Your task to perform on an android device: add a label to a message in the gmail app Image 0: 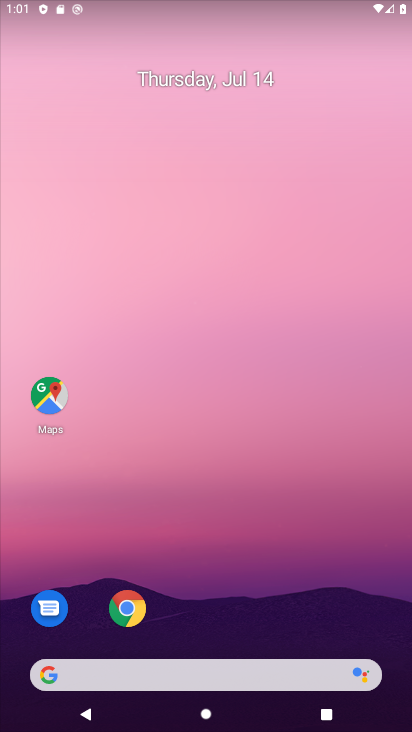
Step 0: drag from (176, 613) to (171, 231)
Your task to perform on an android device: add a label to a message in the gmail app Image 1: 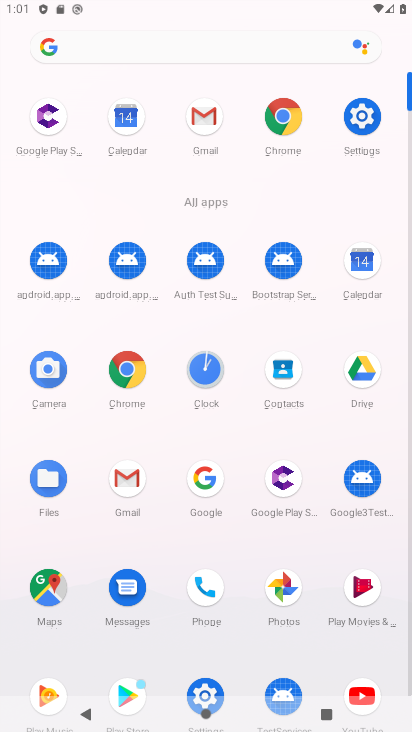
Step 1: click (192, 108)
Your task to perform on an android device: add a label to a message in the gmail app Image 2: 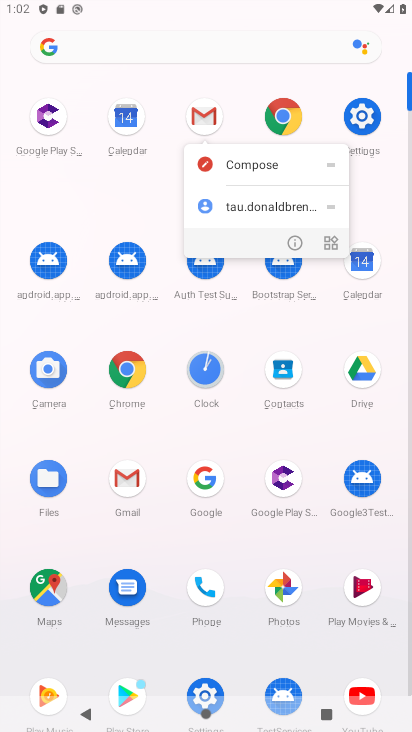
Step 2: click (196, 123)
Your task to perform on an android device: add a label to a message in the gmail app Image 3: 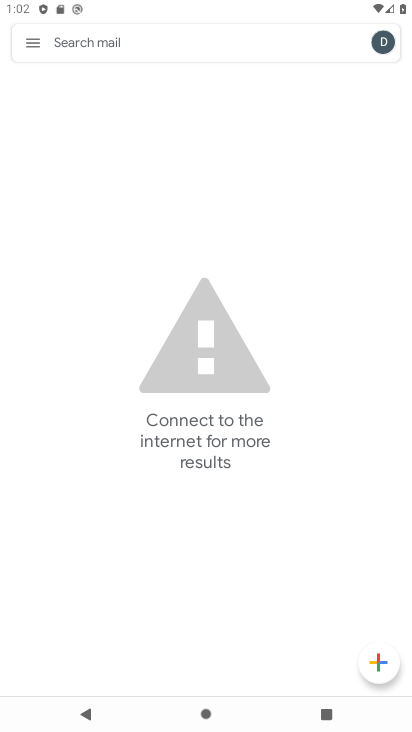
Step 3: click (36, 43)
Your task to perform on an android device: add a label to a message in the gmail app Image 4: 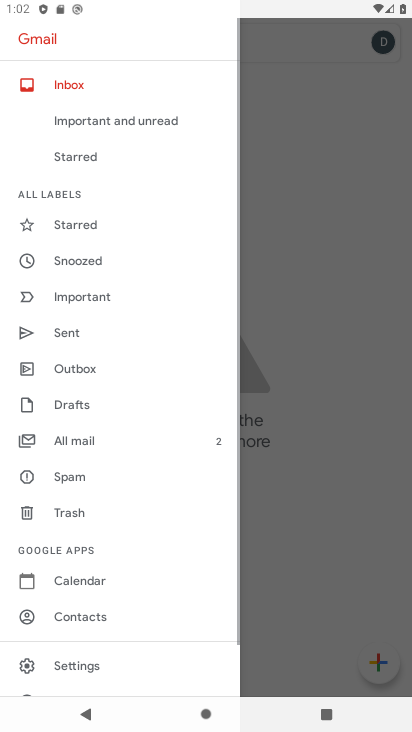
Step 4: click (69, 76)
Your task to perform on an android device: add a label to a message in the gmail app Image 5: 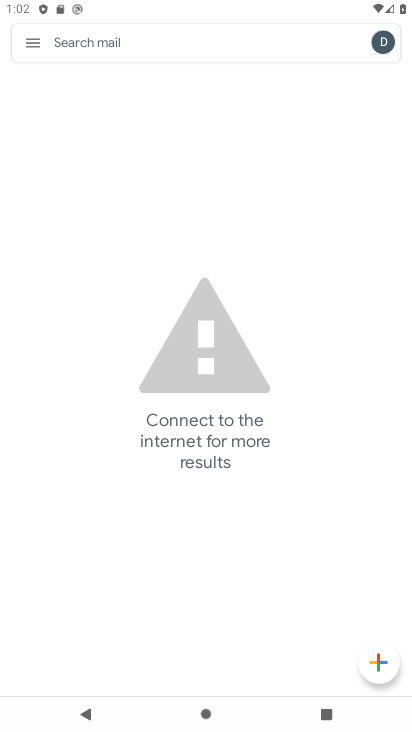
Step 5: click (25, 44)
Your task to perform on an android device: add a label to a message in the gmail app Image 6: 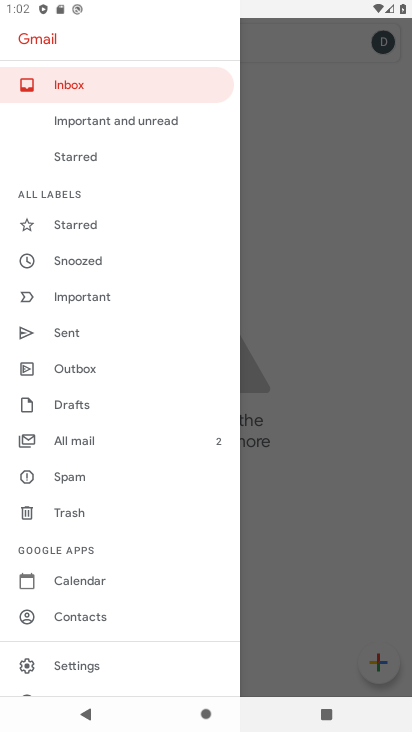
Step 6: click (277, 324)
Your task to perform on an android device: add a label to a message in the gmail app Image 7: 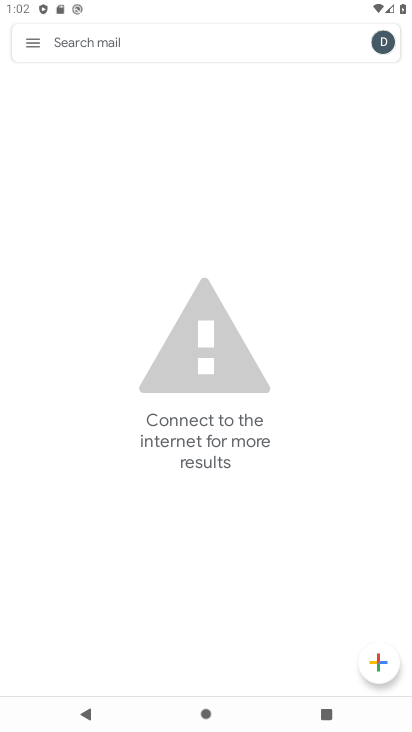
Step 7: task complete